Your task to perform on an android device: Show me the alarms in the clock app Image 0: 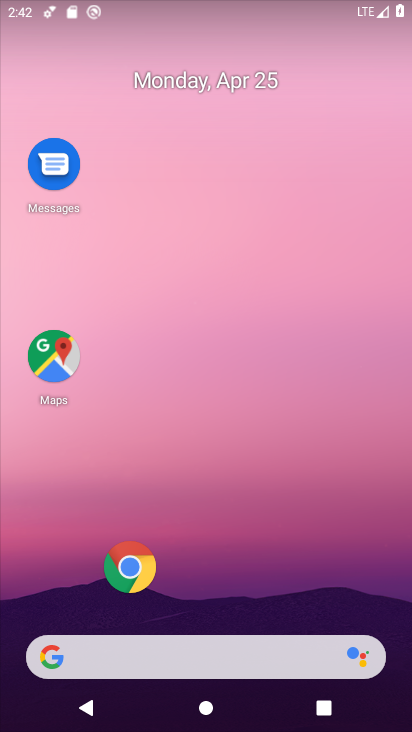
Step 0: click (298, 261)
Your task to perform on an android device: Show me the alarms in the clock app Image 1: 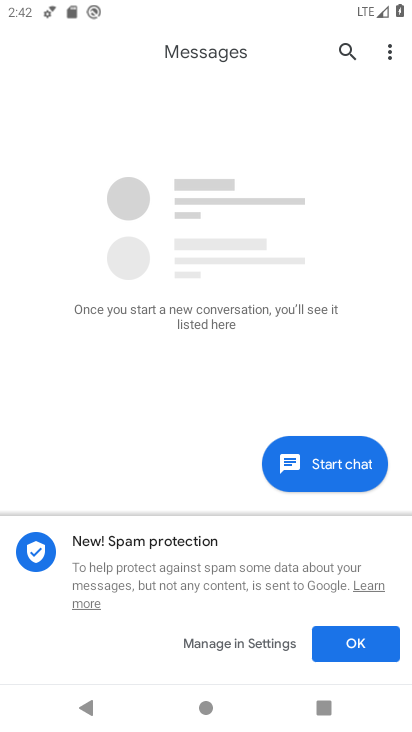
Step 1: press home button
Your task to perform on an android device: Show me the alarms in the clock app Image 2: 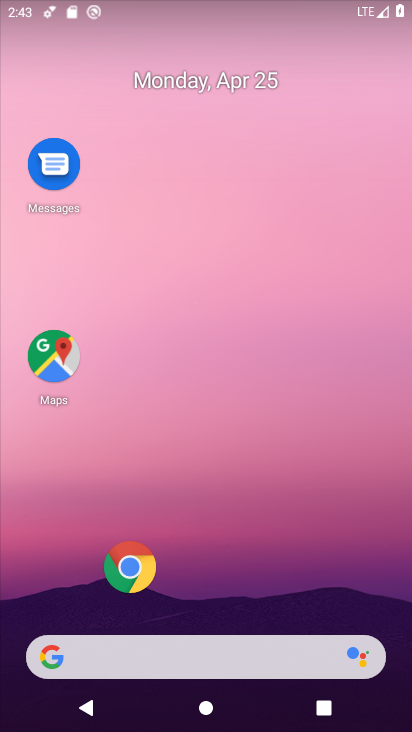
Step 2: drag from (232, 455) to (244, 213)
Your task to perform on an android device: Show me the alarms in the clock app Image 3: 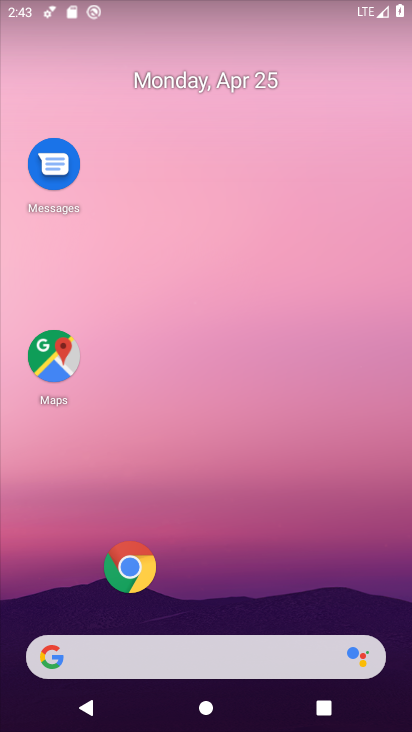
Step 3: drag from (235, 487) to (295, 93)
Your task to perform on an android device: Show me the alarms in the clock app Image 4: 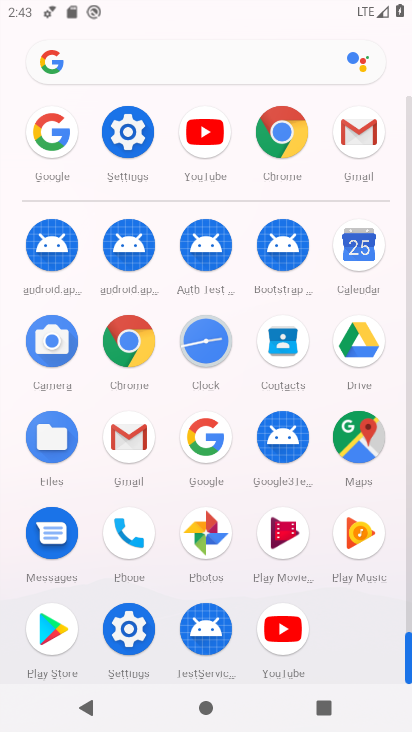
Step 4: click (134, 370)
Your task to perform on an android device: Show me the alarms in the clock app Image 5: 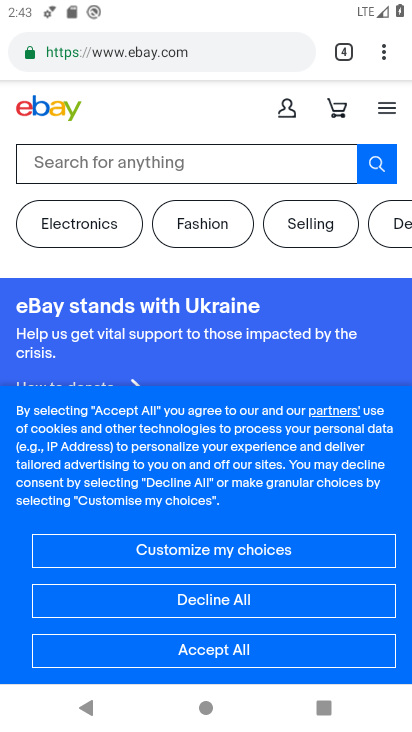
Step 5: press home button
Your task to perform on an android device: Show me the alarms in the clock app Image 6: 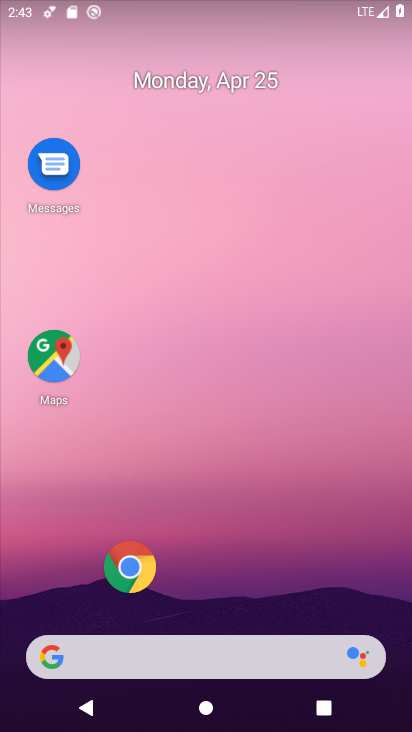
Step 6: drag from (252, 592) to (262, 97)
Your task to perform on an android device: Show me the alarms in the clock app Image 7: 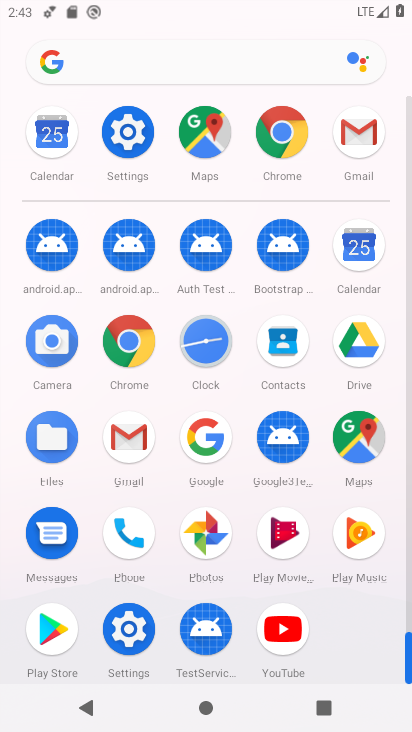
Step 7: click (209, 353)
Your task to perform on an android device: Show me the alarms in the clock app Image 8: 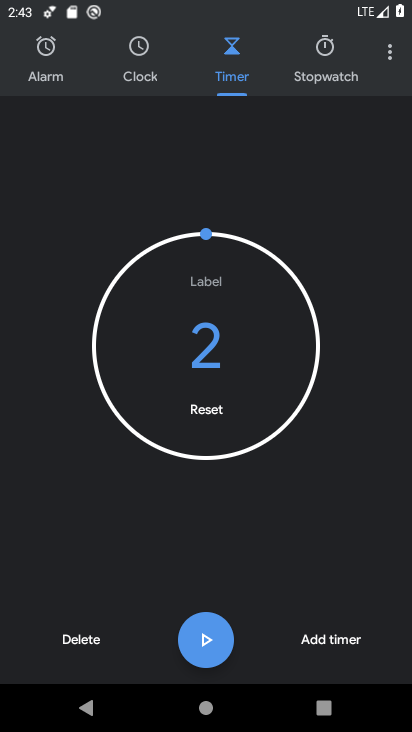
Step 8: click (44, 77)
Your task to perform on an android device: Show me the alarms in the clock app Image 9: 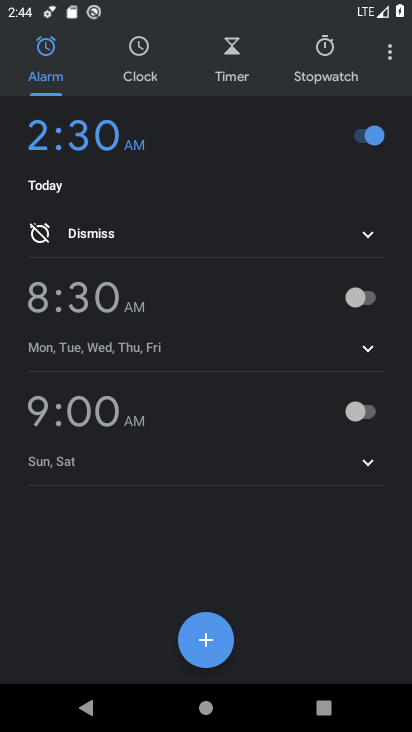
Step 9: task complete